Your task to perform on an android device: open a bookmark in the chrome app Image 0: 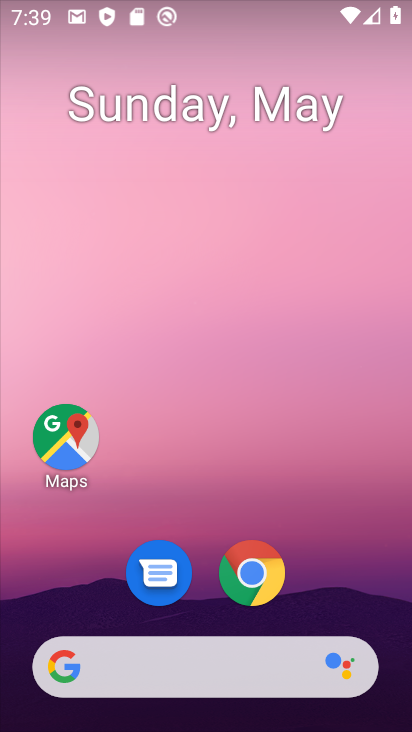
Step 0: click (250, 579)
Your task to perform on an android device: open a bookmark in the chrome app Image 1: 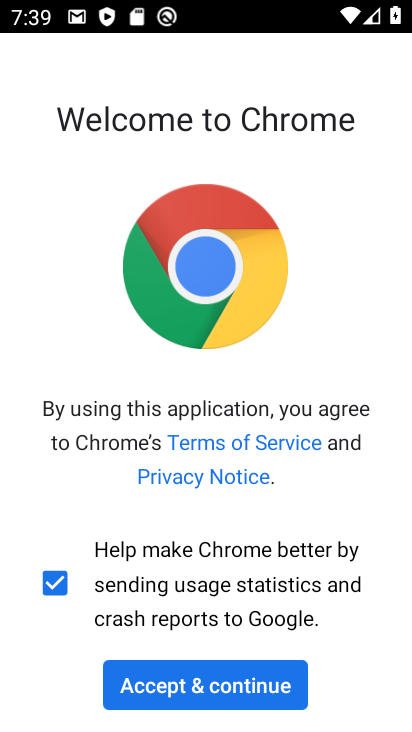
Step 1: click (265, 680)
Your task to perform on an android device: open a bookmark in the chrome app Image 2: 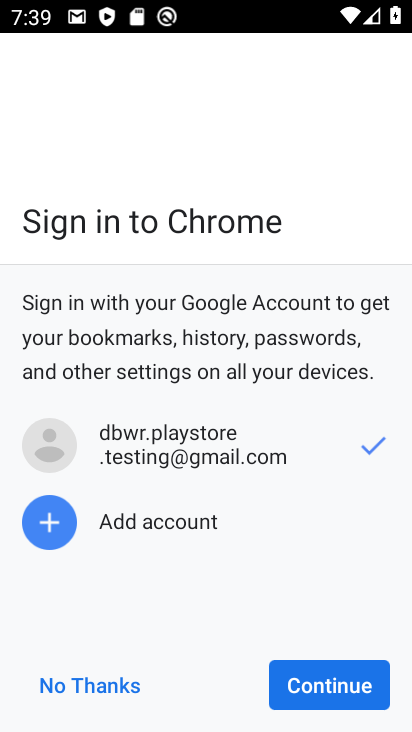
Step 2: click (313, 683)
Your task to perform on an android device: open a bookmark in the chrome app Image 3: 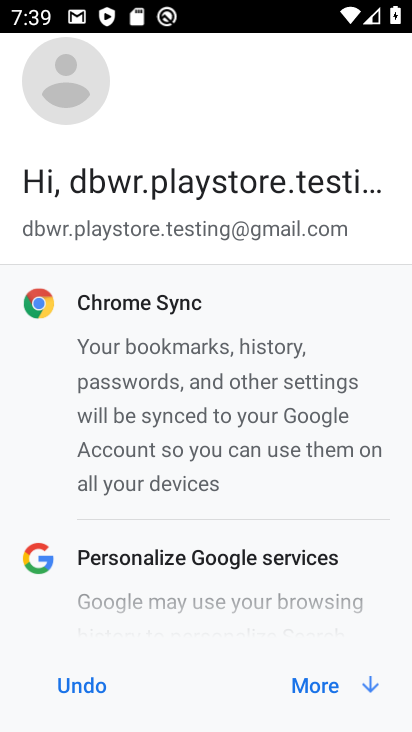
Step 3: click (313, 681)
Your task to perform on an android device: open a bookmark in the chrome app Image 4: 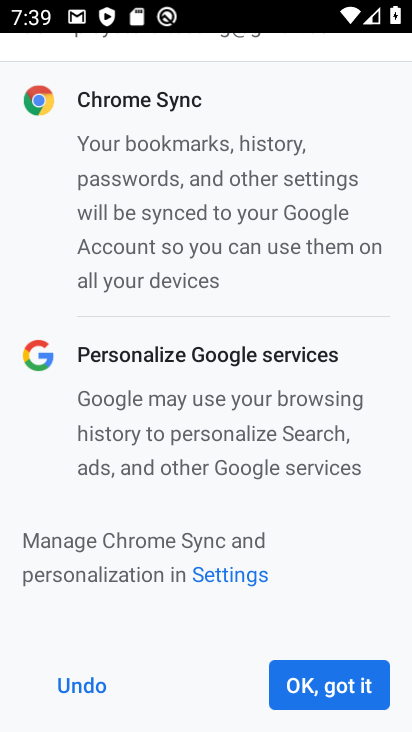
Step 4: click (313, 681)
Your task to perform on an android device: open a bookmark in the chrome app Image 5: 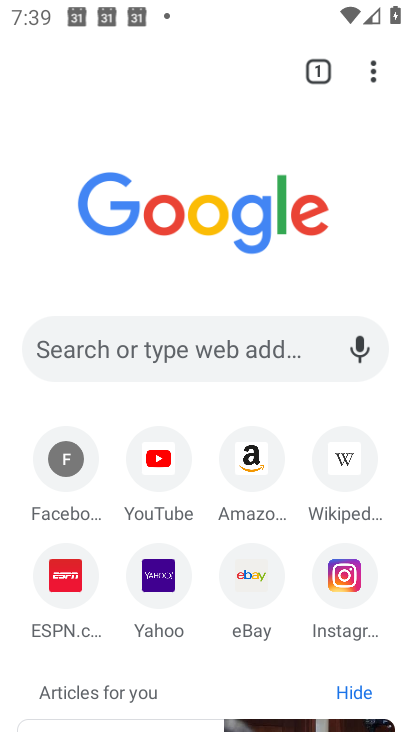
Step 5: click (369, 75)
Your task to perform on an android device: open a bookmark in the chrome app Image 6: 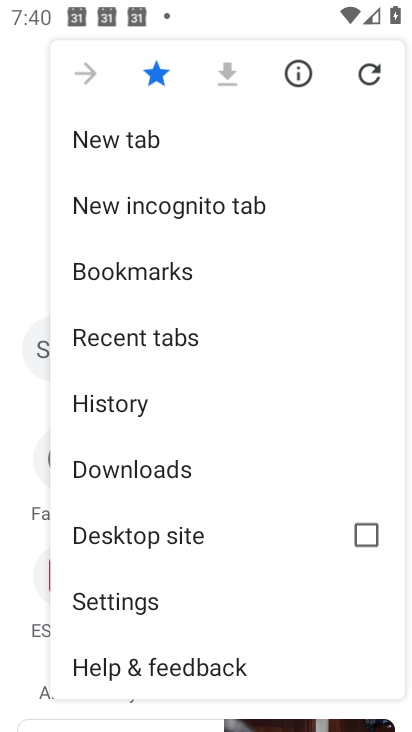
Step 6: click (176, 269)
Your task to perform on an android device: open a bookmark in the chrome app Image 7: 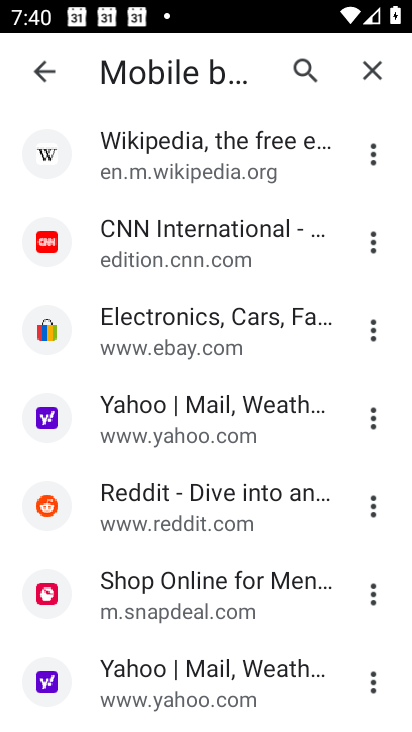
Step 7: click (124, 145)
Your task to perform on an android device: open a bookmark in the chrome app Image 8: 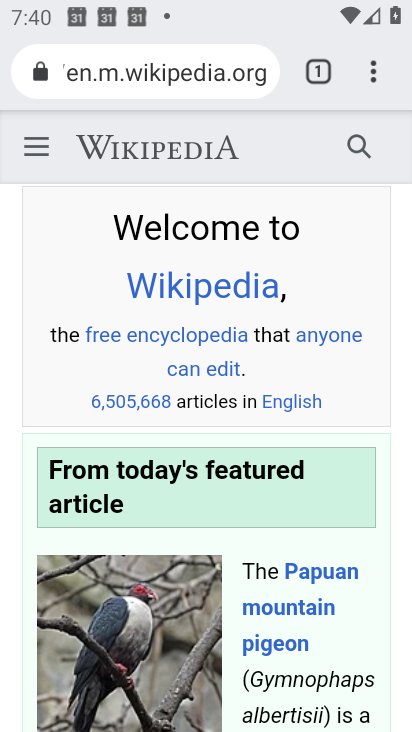
Step 8: task complete